Your task to perform on an android device: Open display settings Image 0: 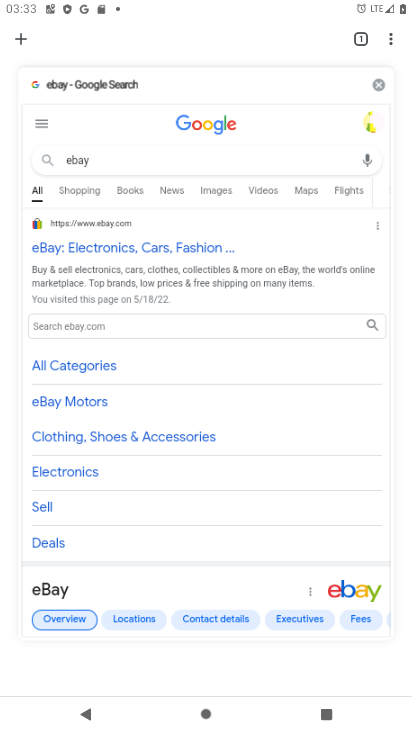
Step 0: press home button
Your task to perform on an android device: Open display settings Image 1: 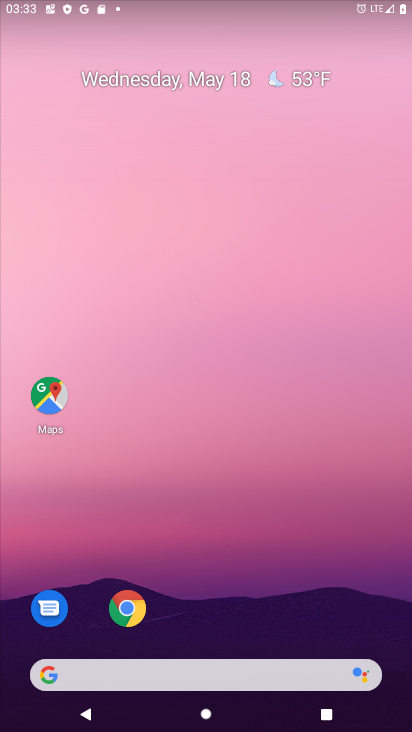
Step 1: drag from (304, 632) to (311, 0)
Your task to perform on an android device: Open display settings Image 2: 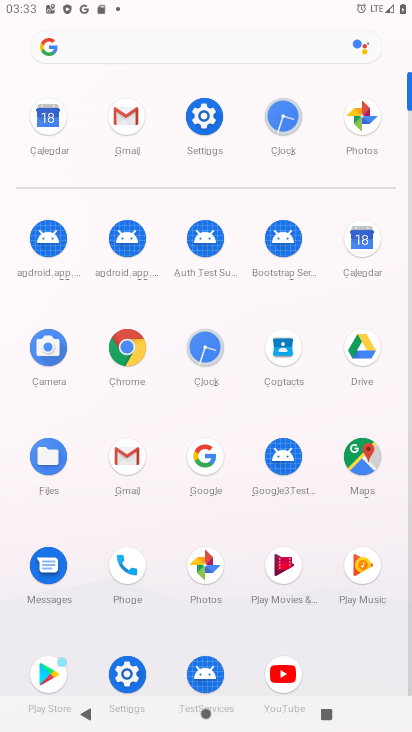
Step 2: click (211, 122)
Your task to perform on an android device: Open display settings Image 3: 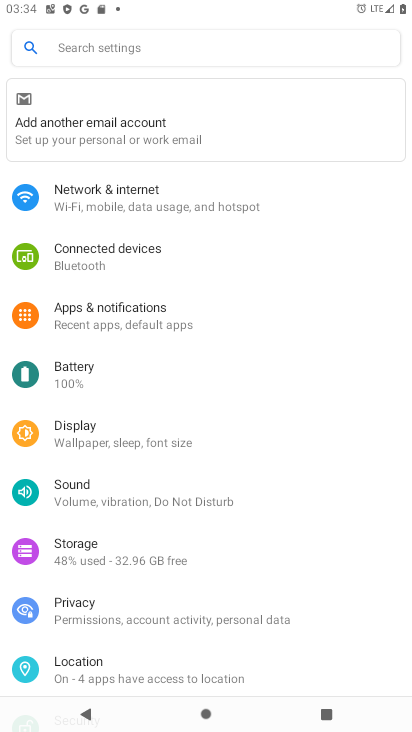
Step 3: click (84, 437)
Your task to perform on an android device: Open display settings Image 4: 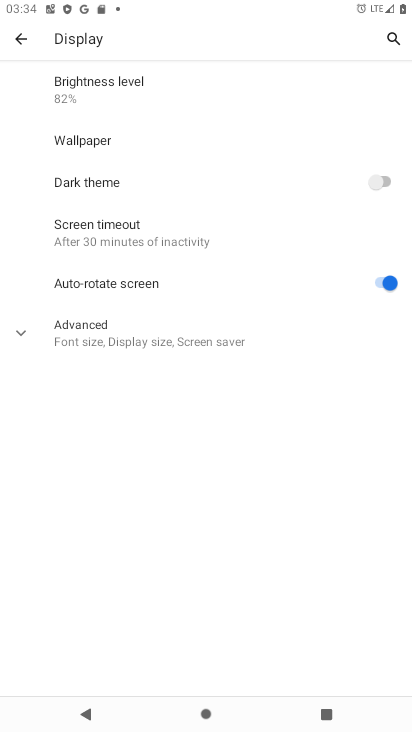
Step 4: task complete